Your task to perform on an android device: Go to Android settings Image 0: 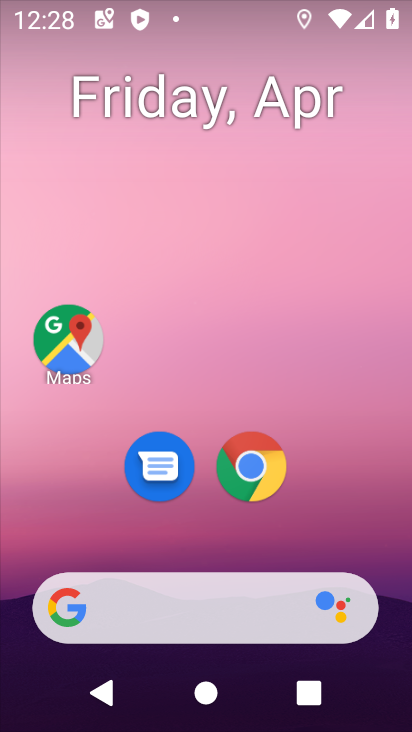
Step 0: drag from (374, 505) to (383, 105)
Your task to perform on an android device: Go to Android settings Image 1: 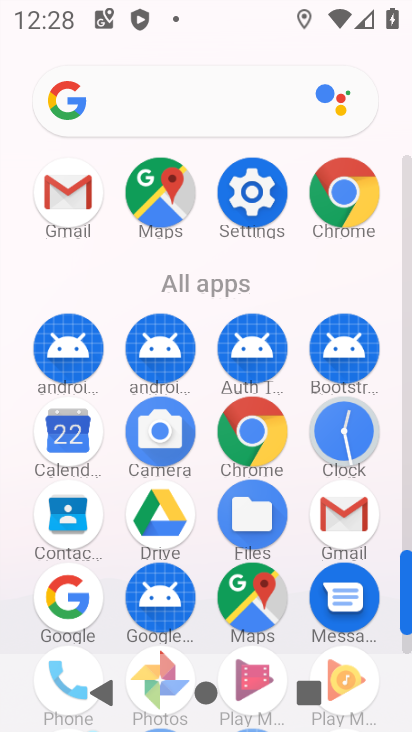
Step 1: click (253, 213)
Your task to perform on an android device: Go to Android settings Image 2: 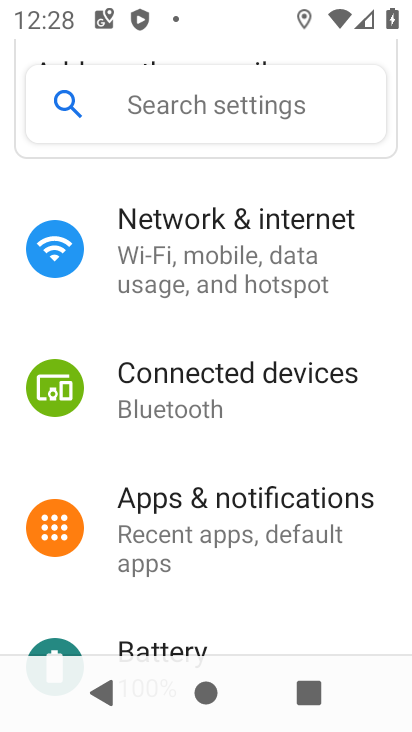
Step 2: drag from (253, 586) to (284, 215)
Your task to perform on an android device: Go to Android settings Image 3: 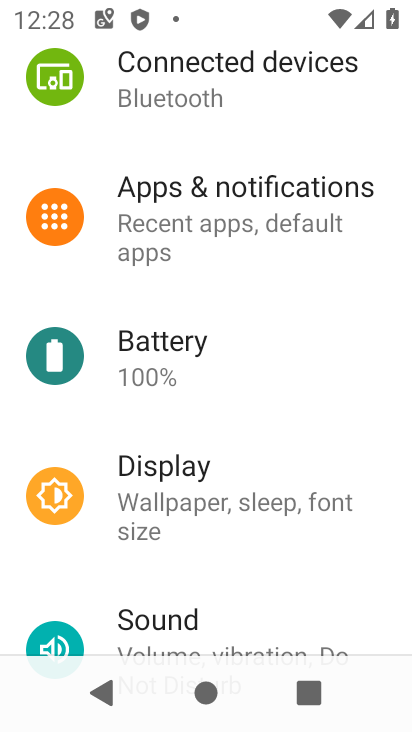
Step 3: drag from (276, 562) to (299, 147)
Your task to perform on an android device: Go to Android settings Image 4: 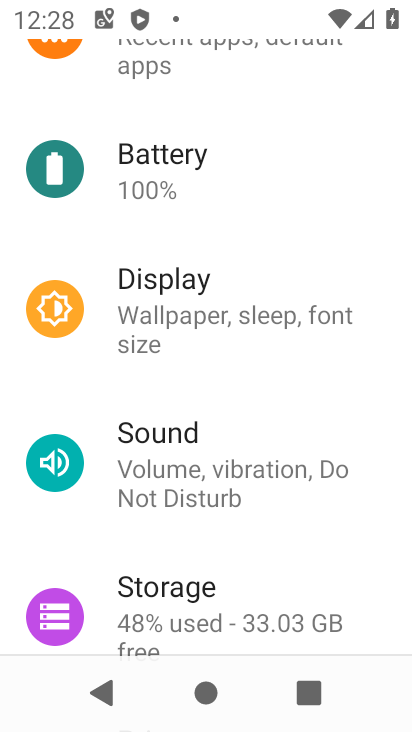
Step 4: drag from (271, 571) to (284, 252)
Your task to perform on an android device: Go to Android settings Image 5: 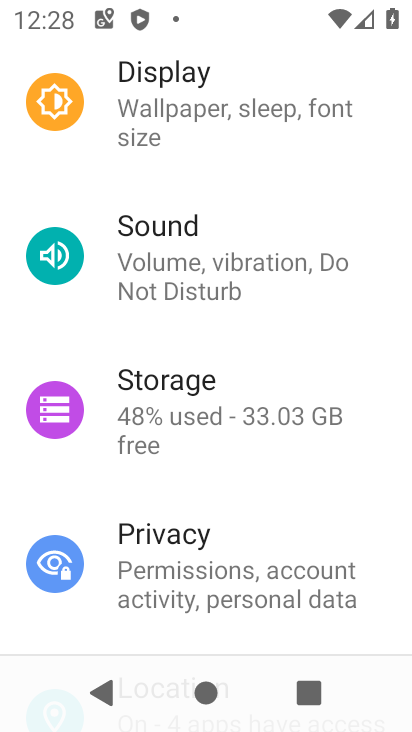
Step 5: drag from (253, 630) to (286, 224)
Your task to perform on an android device: Go to Android settings Image 6: 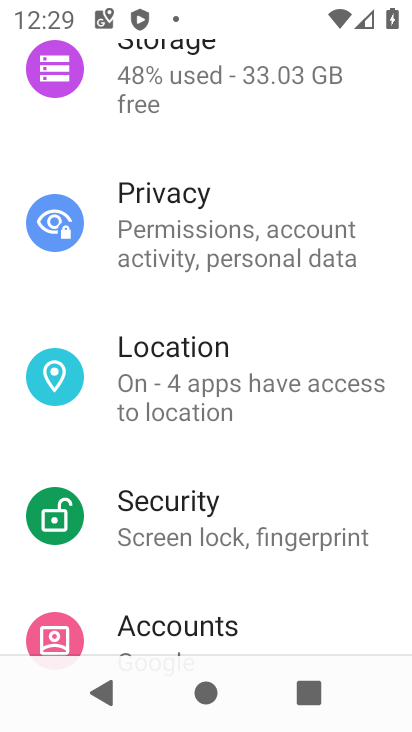
Step 6: drag from (258, 553) to (291, 215)
Your task to perform on an android device: Go to Android settings Image 7: 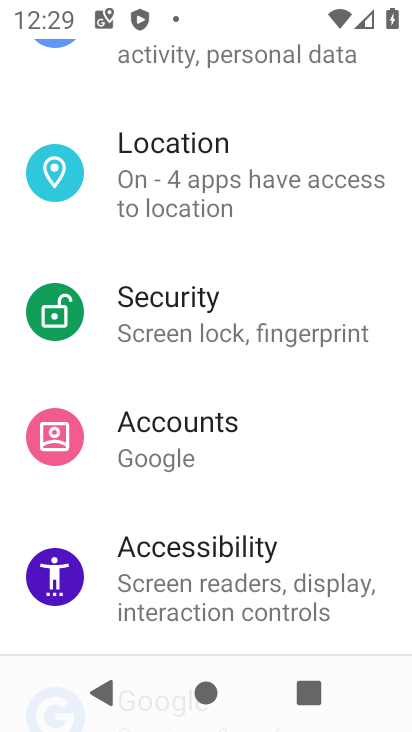
Step 7: drag from (279, 421) to (302, 209)
Your task to perform on an android device: Go to Android settings Image 8: 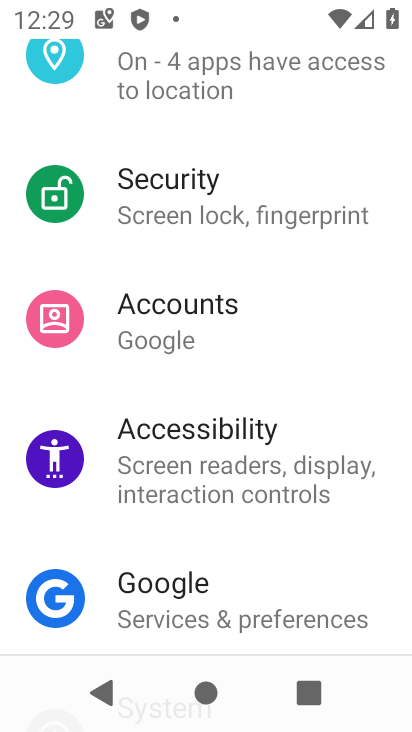
Step 8: drag from (327, 571) to (321, 246)
Your task to perform on an android device: Go to Android settings Image 9: 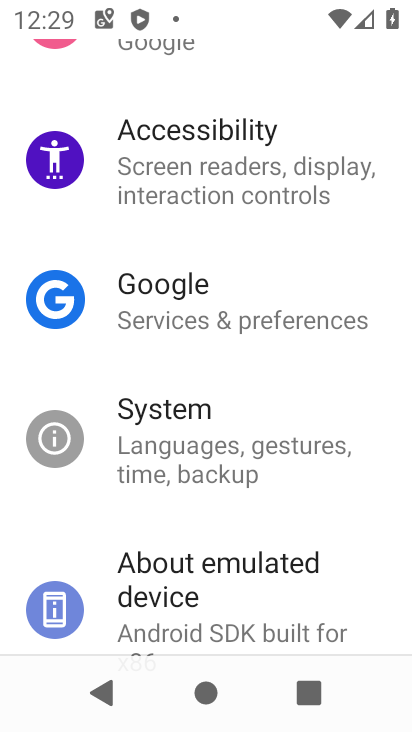
Step 9: click (252, 592)
Your task to perform on an android device: Go to Android settings Image 10: 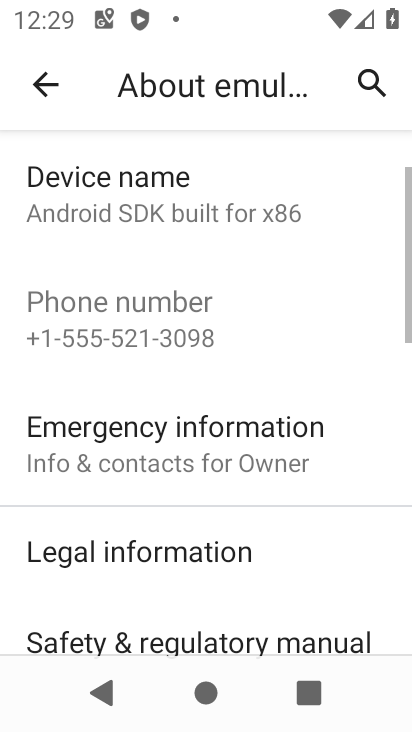
Step 10: task complete